Your task to perform on an android device: Google the capital of Canada Image 0: 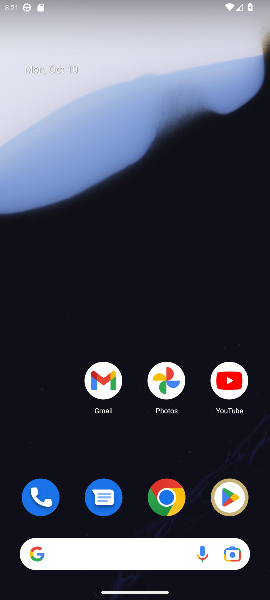
Step 0: drag from (144, 459) to (157, 226)
Your task to perform on an android device: Google the capital of Canada Image 1: 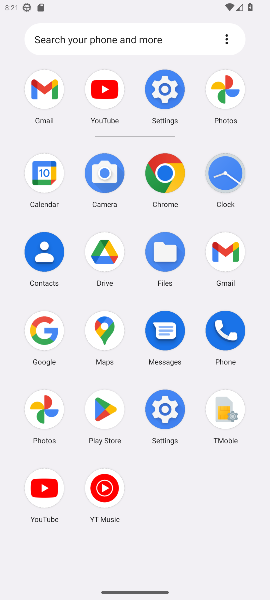
Step 1: click (36, 329)
Your task to perform on an android device: Google the capital of Canada Image 2: 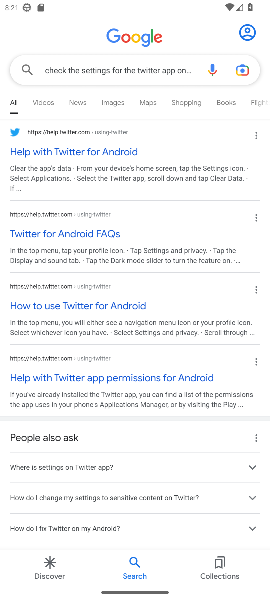
Step 2: click (118, 67)
Your task to perform on an android device: Google the capital of Canada Image 3: 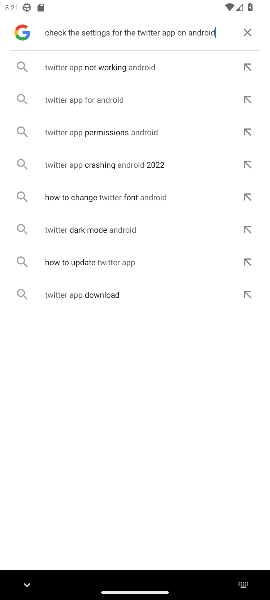
Step 3: click (252, 26)
Your task to perform on an android device: Google the capital of Canada Image 4: 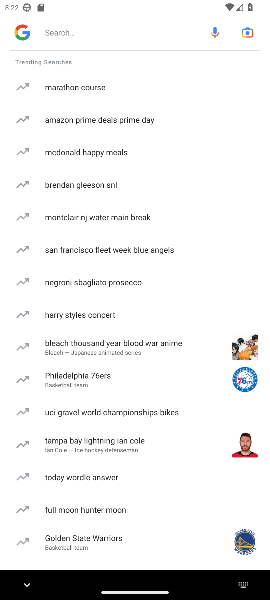
Step 4: click (97, 23)
Your task to perform on an android device: Google the capital of Canada Image 5: 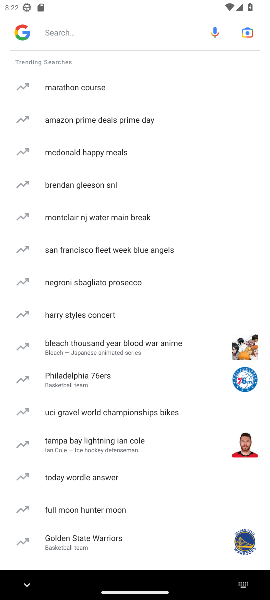
Step 5: type " the capital of Canada "
Your task to perform on an android device: Google the capital of Canada Image 6: 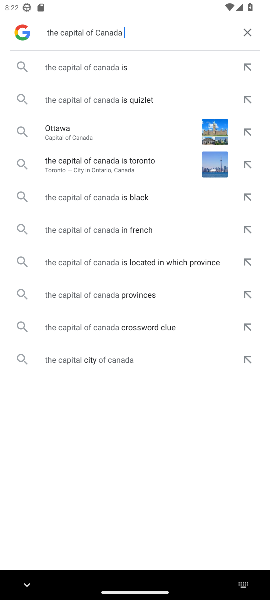
Step 6: click (119, 74)
Your task to perform on an android device: Google the capital of Canada Image 7: 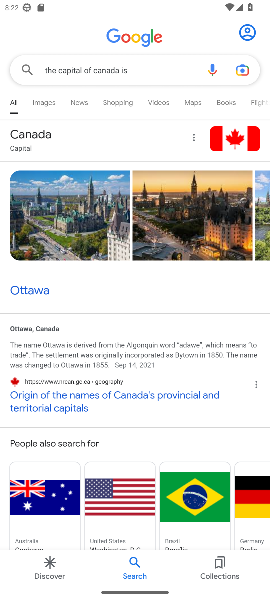
Step 7: task complete